Your task to perform on an android device: Is it going to rain tomorrow? Image 0: 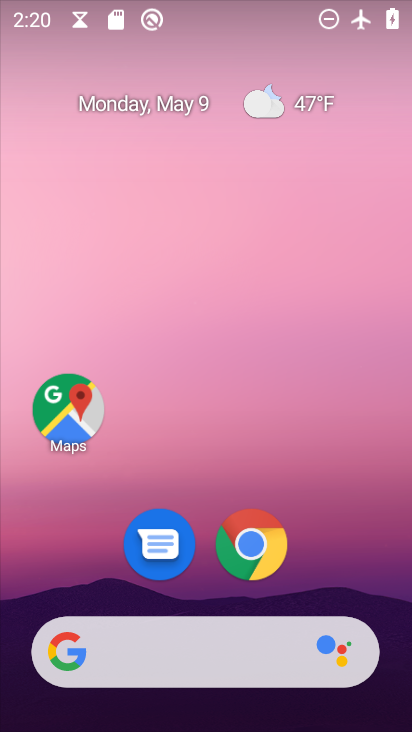
Step 0: drag from (390, 485) to (404, 138)
Your task to perform on an android device: Is it going to rain tomorrow? Image 1: 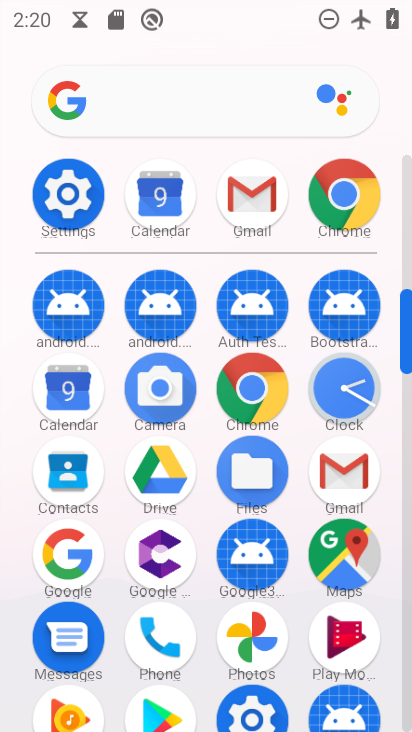
Step 1: press home button
Your task to perform on an android device: Is it going to rain tomorrow? Image 2: 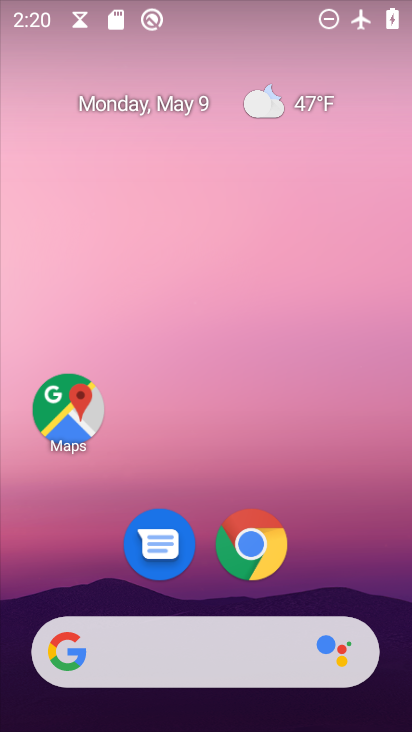
Step 2: click (312, 106)
Your task to perform on an android device: Is it going to rain tomorrow? Image 3: 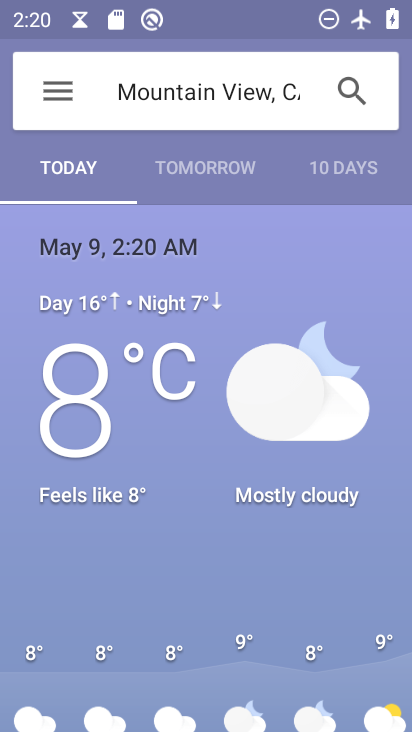
Step 3: click (222, 167)
Your task to perform on an android device: Is it going to rain tomorrow? Image 4: 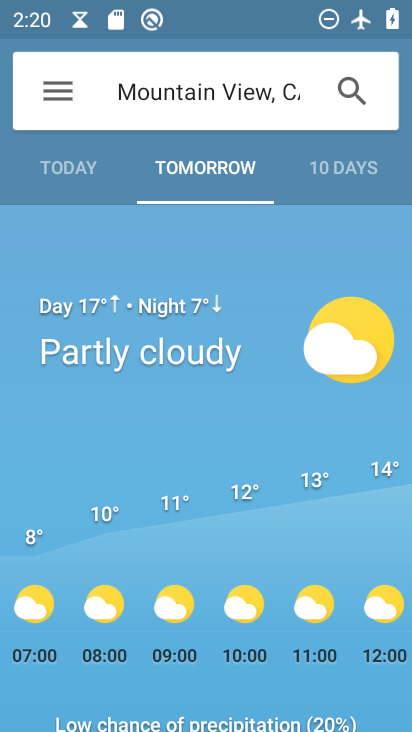
Step 4: task complete